Your task to perform on an android device: turn on wifi Image 0: 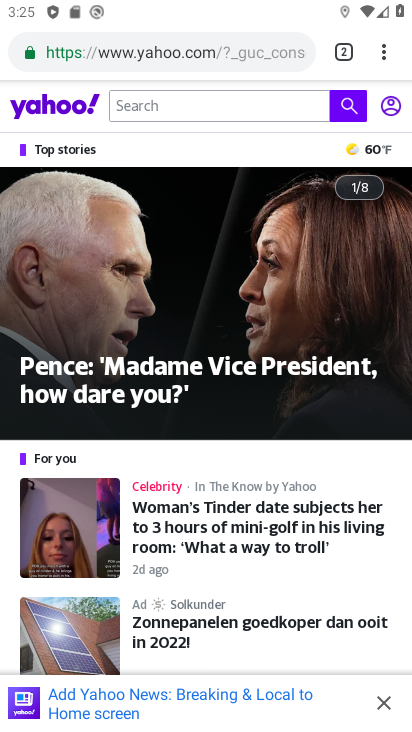
Step 0: press home button
Your task to perform on an android device: turn on wifi Image 1: 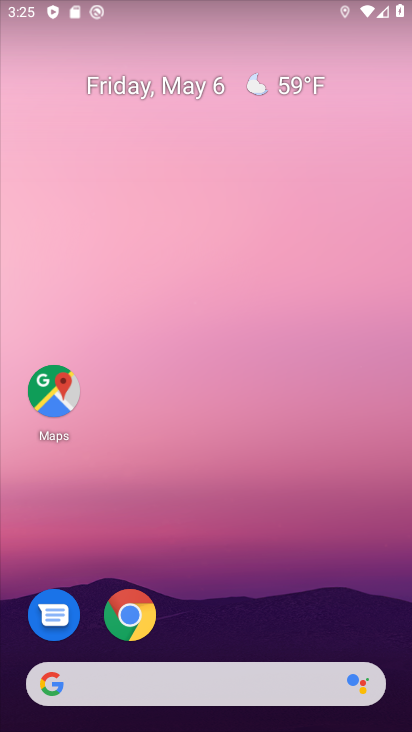
Step 1: drag from (267, 628) to (271, 2)
Your task to perform on an android device: turn on wifi Image 2: 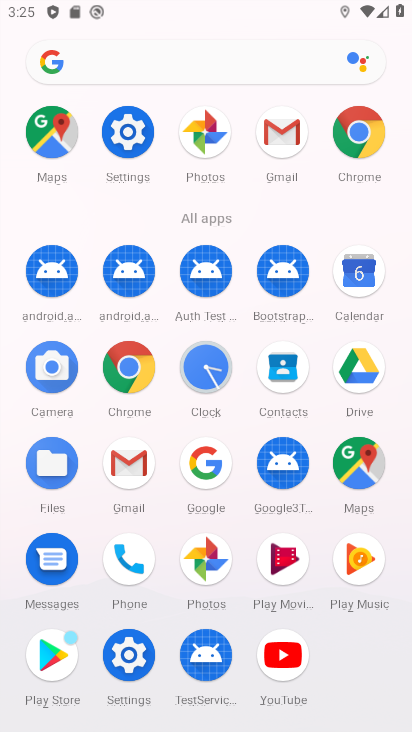
Step 2: click (128, 130)
Your task to perform on an android device: turn on wifi Image 3: 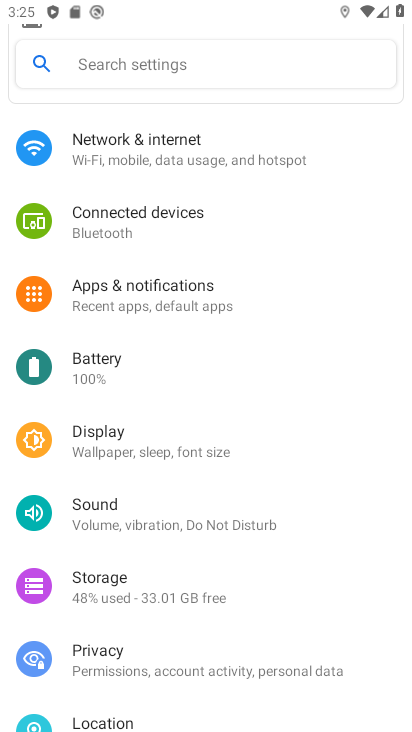
Step 3: click (108, 157)
Your task to perform on an android device: turn on wifi Image 4: 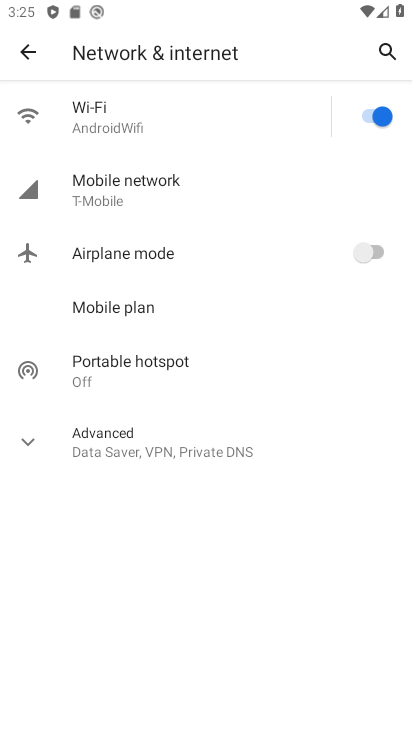
Step 4: task complete